Your task to perform on an android device: open app "Reddit" (install if not already installed) Image 0: 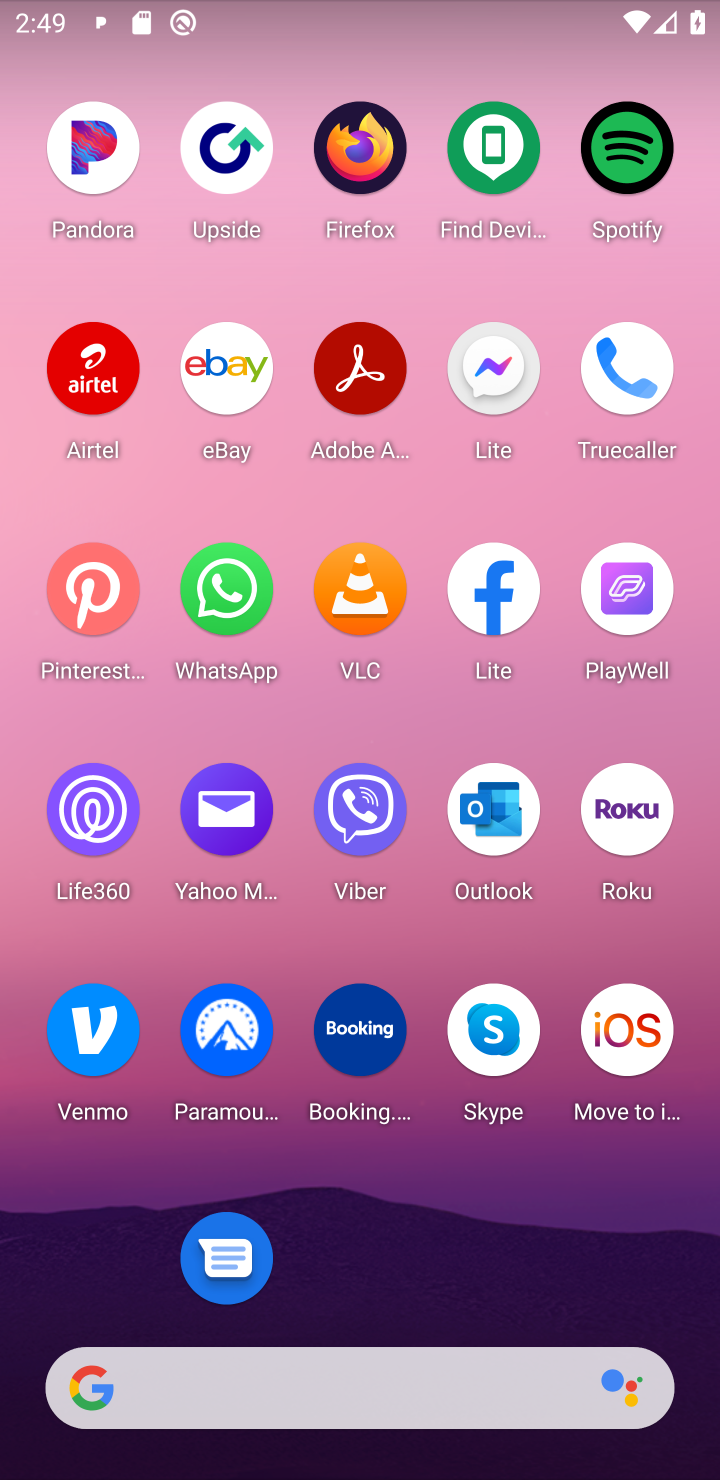
Step 0: drag from (363, 1298) to (459, 234)
Your task to perform on an android device: open app "Reddit" (install if not already installed) Image 1: 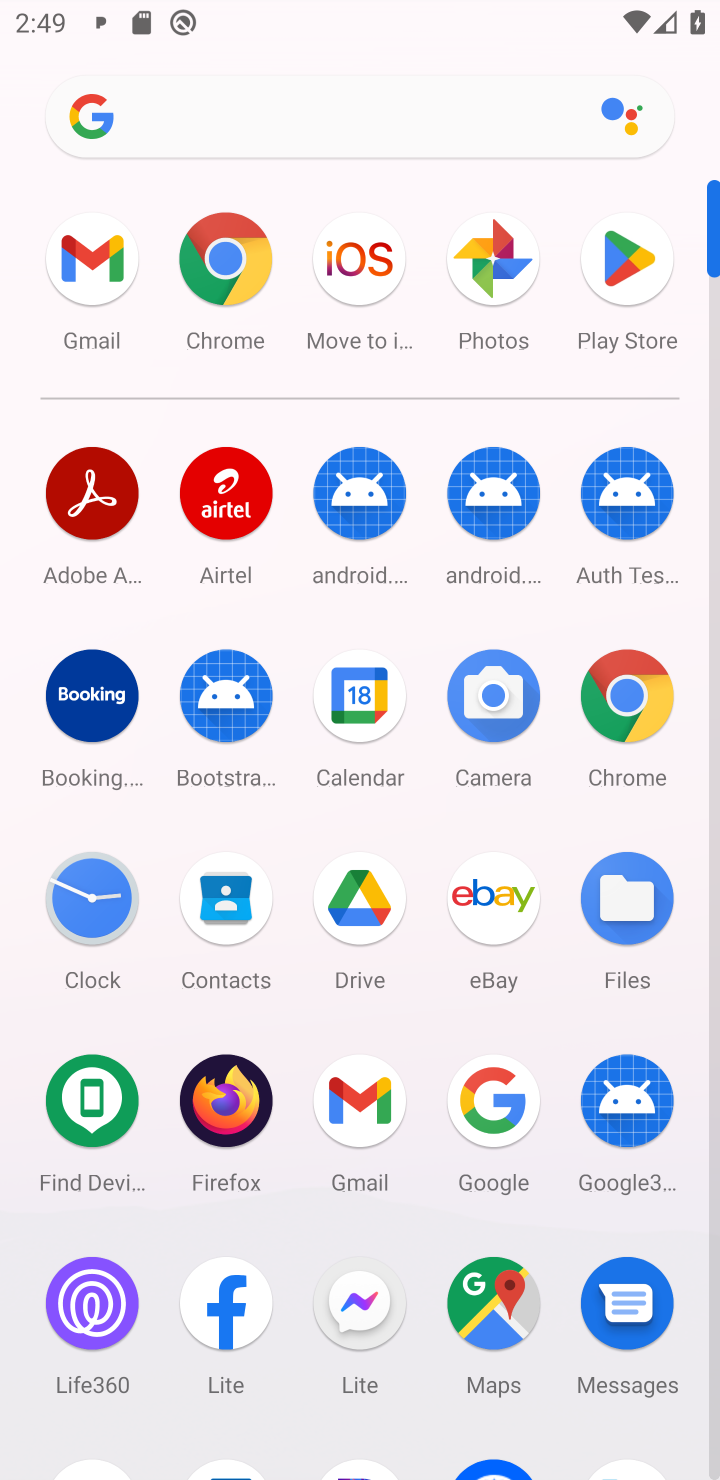
Step 1: click (632, 245)
Your task to perform on an android device: open app "Reddit" (install if not already installed) Image 2: 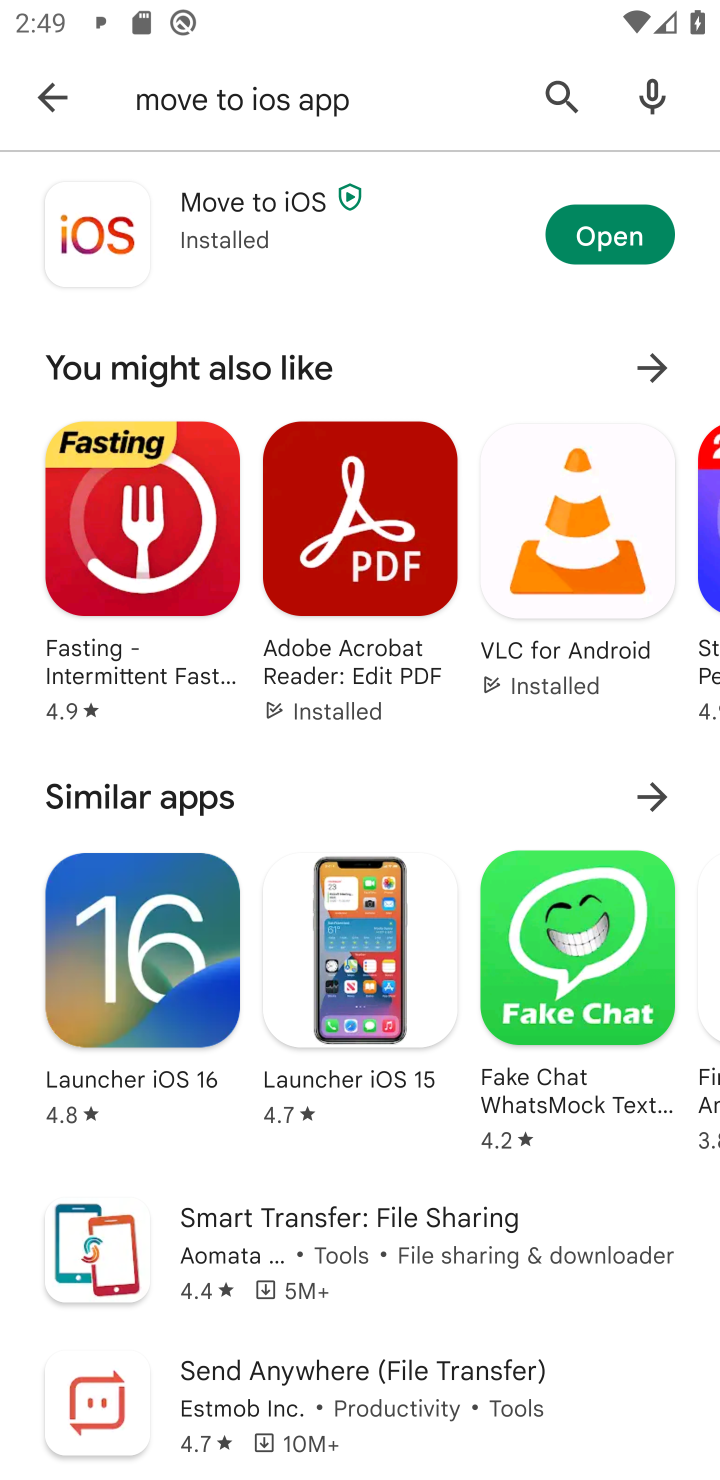
Step 2: click (45, 98)
Your task to perform on an android device: open app "Reddit" (install if not already installed) Image 3: 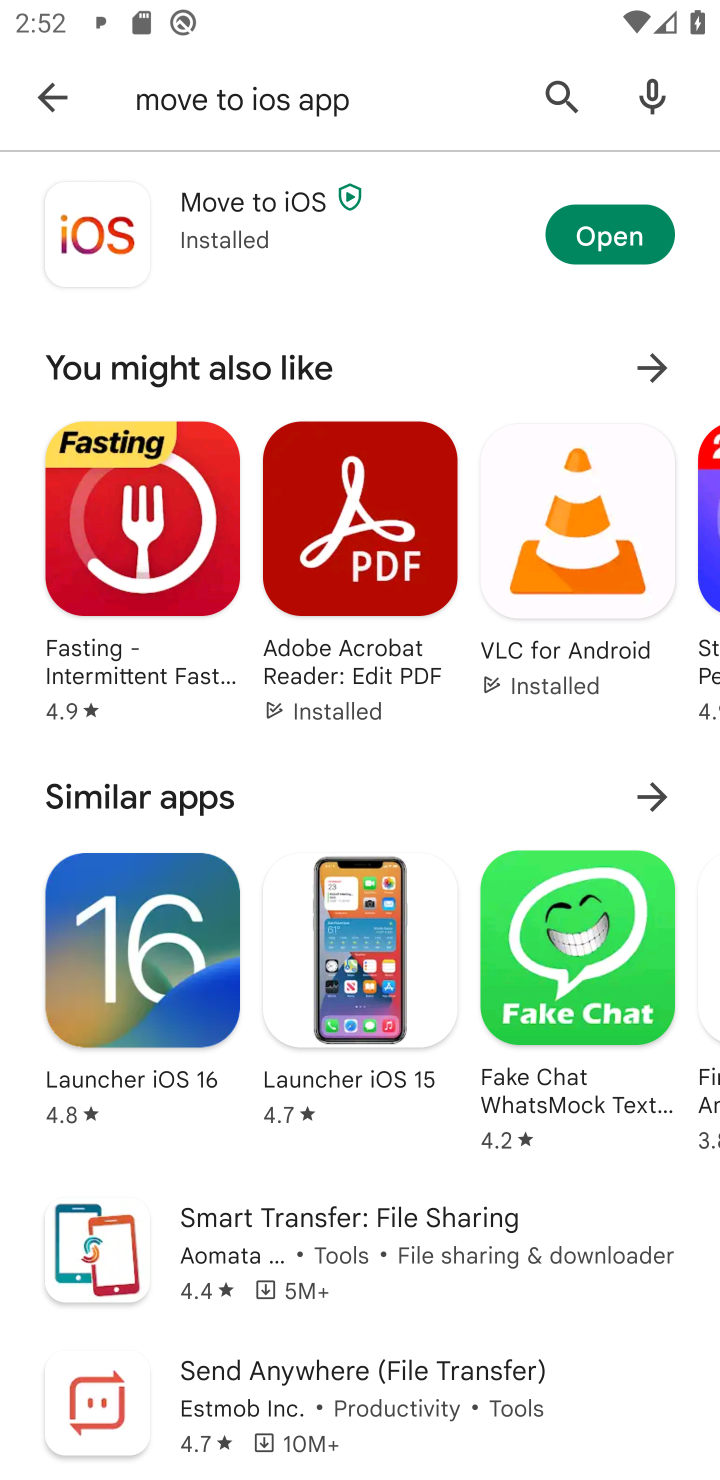
Step 3: click (28, 98)
Your task to perform on an android device: open app "Reddit" (install if not already installed) Image 4: 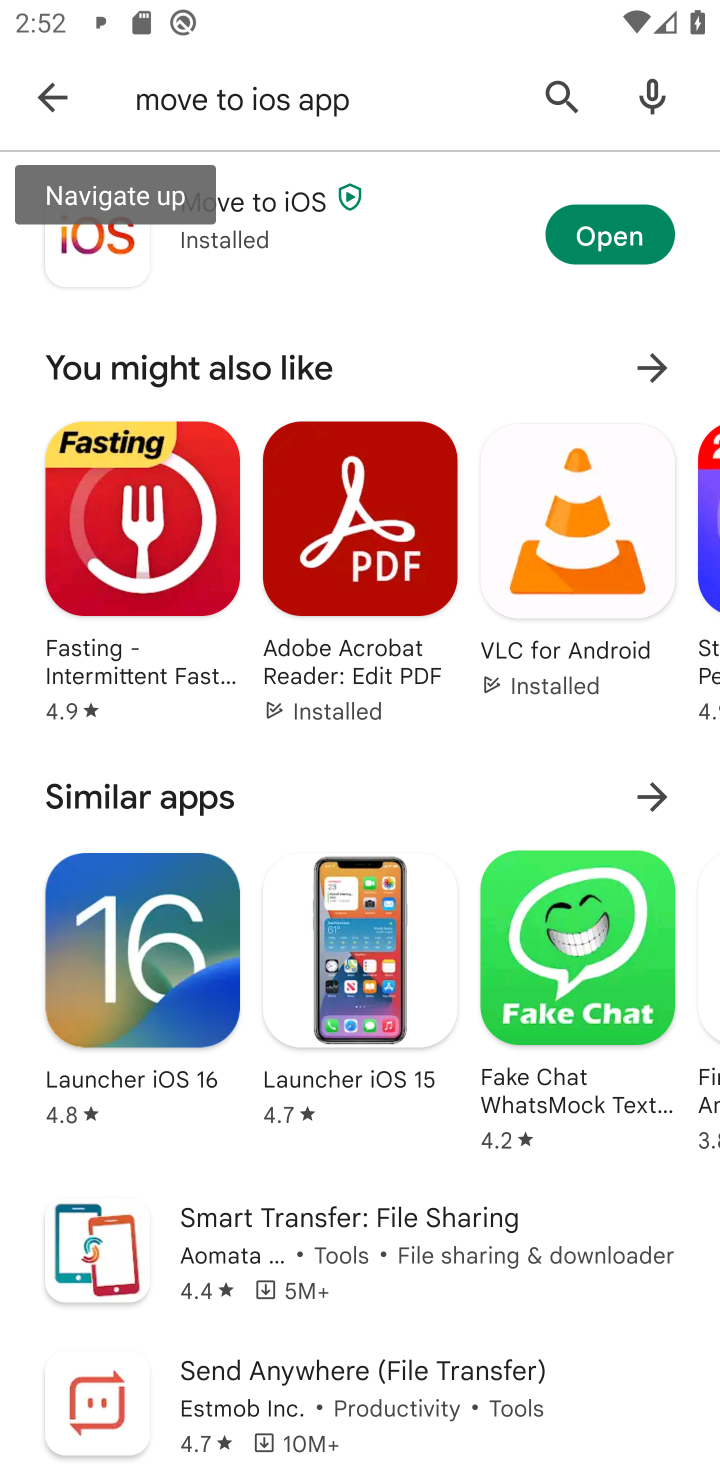
Step 4: click (538, 69)
Your task to perform on an android device: open app "Reddit" (install if not already installed) Image 5: 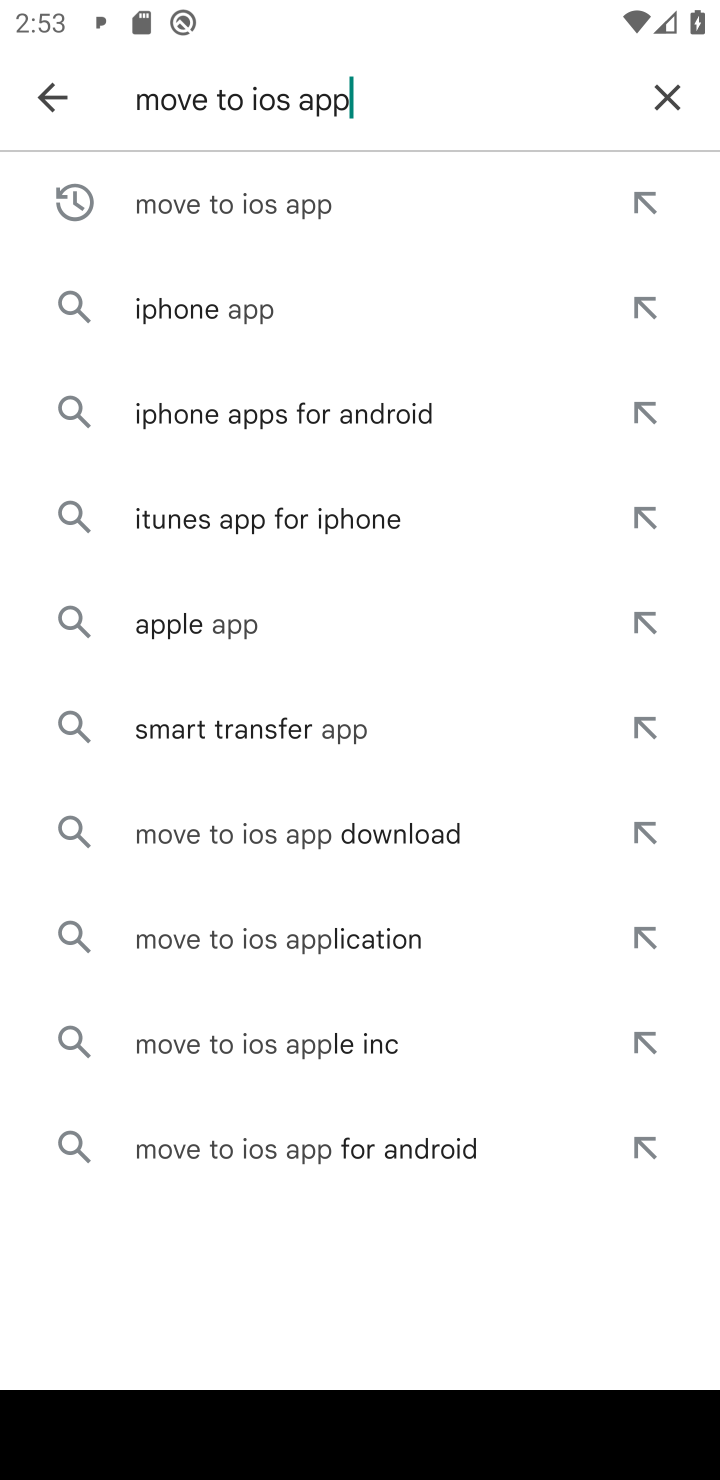
Step 5: click (663, 60)
Your task to perform on an android device: open app "Reddit" (install if not already installed) Image 6: 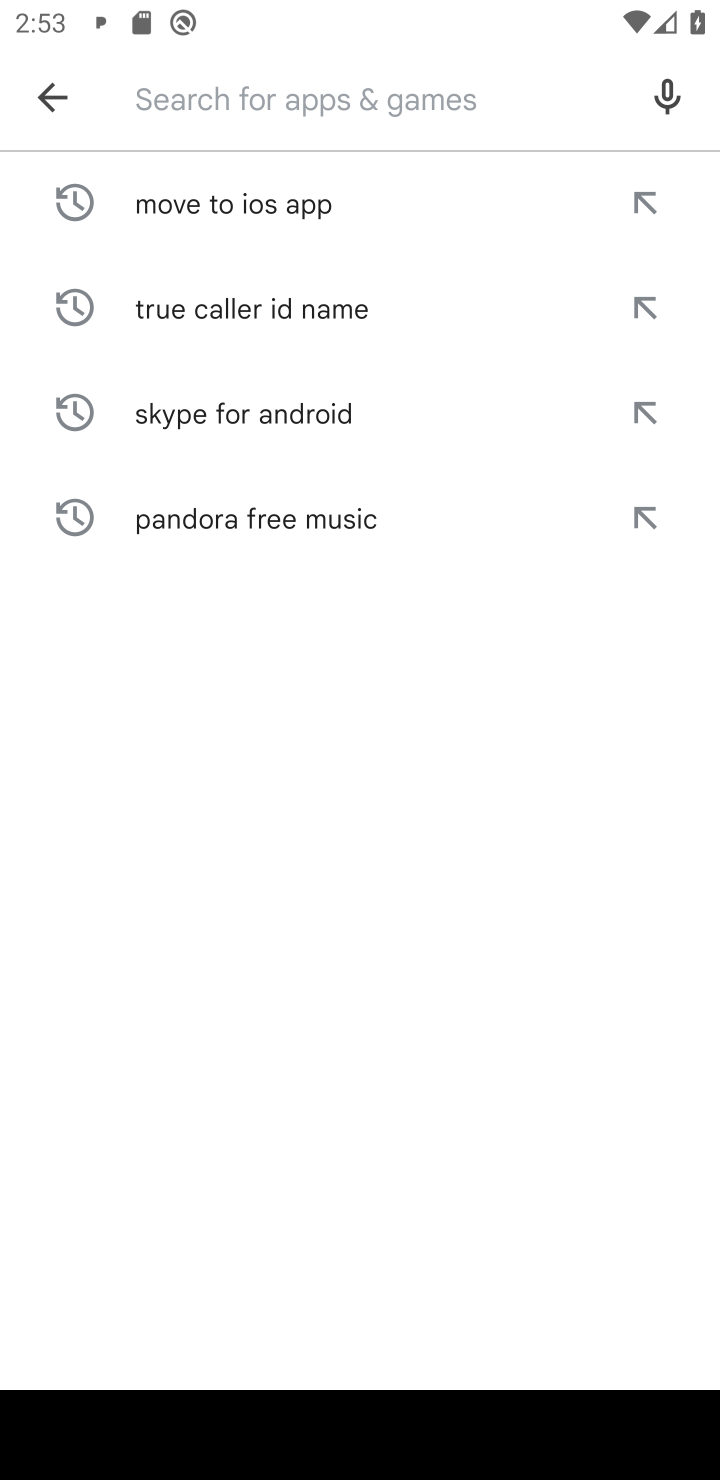
Step 6: click (454, 107)
Your task to perform on an android device: open app "Reddit" (install if not already installed) Image 7: 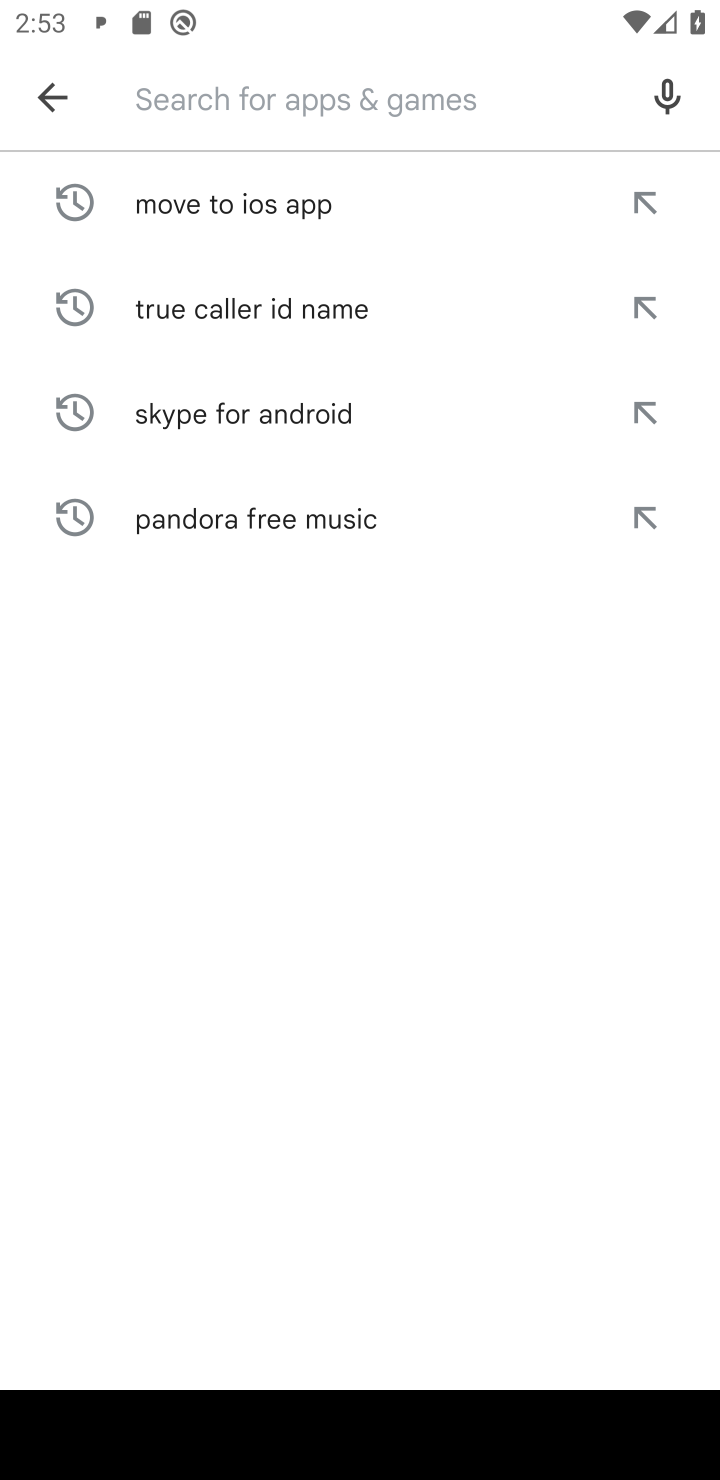
Step 7: type "Reddit "
Your task to perform on an android device: open app "Reddit" (install if not already installed) Image 8: 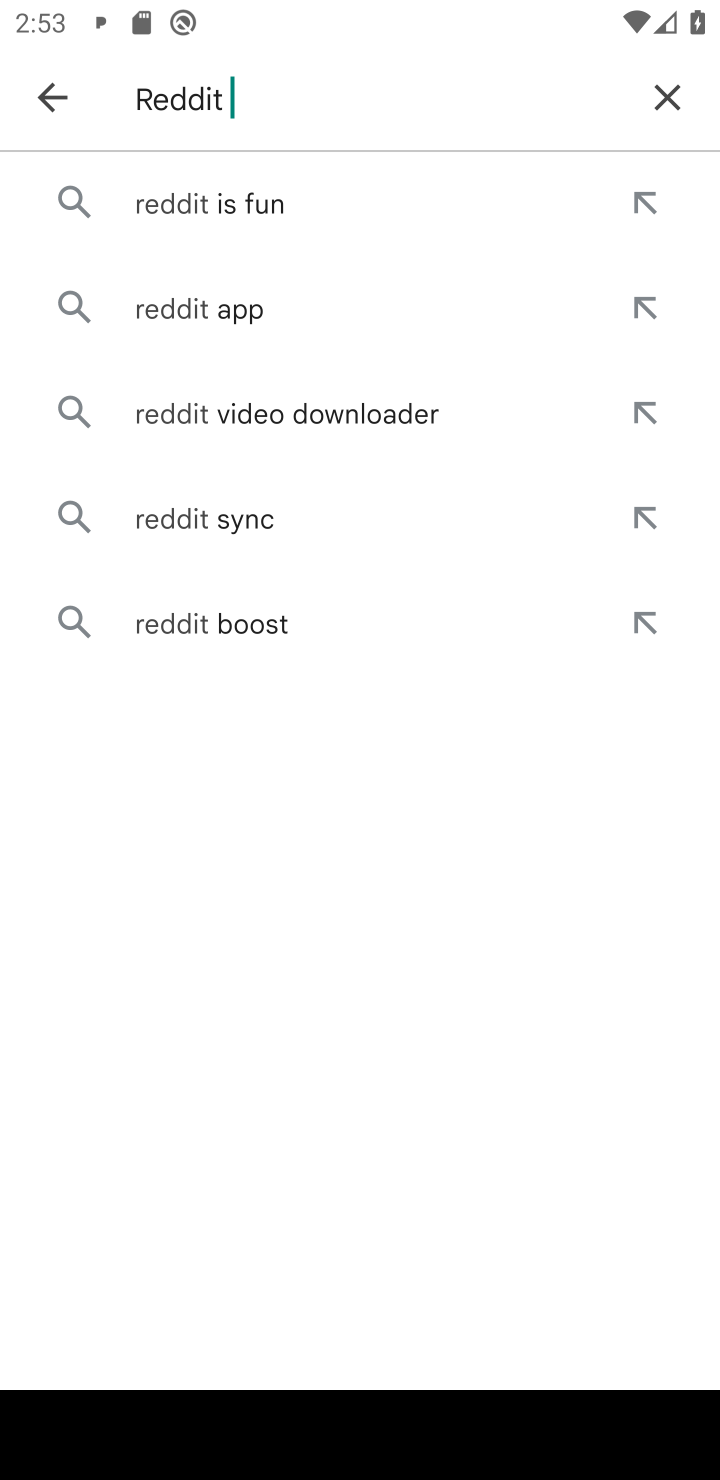
Step 8: click (209, 332)
Your task to perform on an android device: open app "Reddit" (install if not already installed) Image 9: 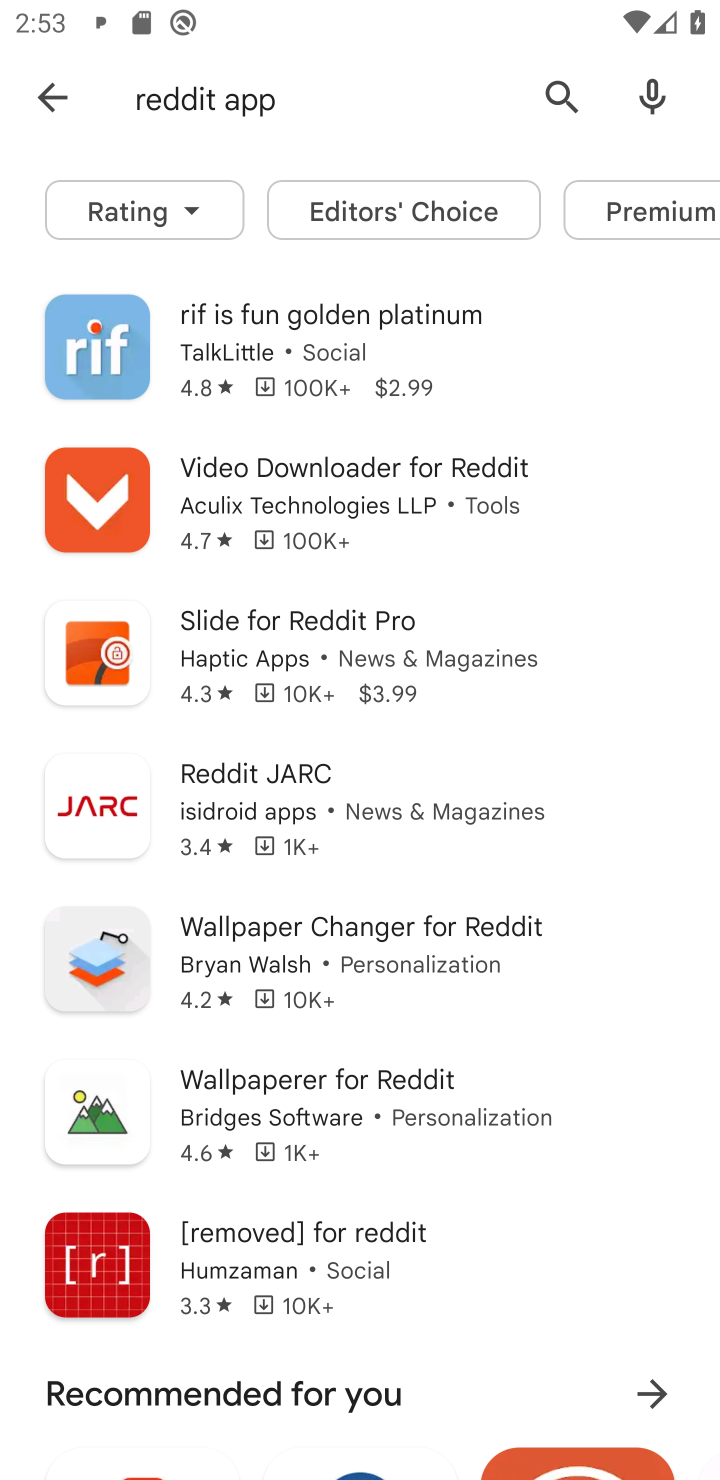
Step 9: task complete